Your task to perform on an android device: Open Wikipedia Image 0: 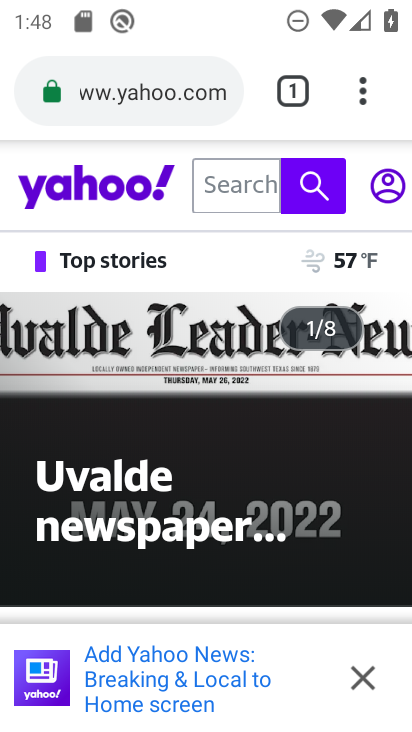
Step 0: press home button
Your task to perform on an android device: Open Wikipedia Image 1: 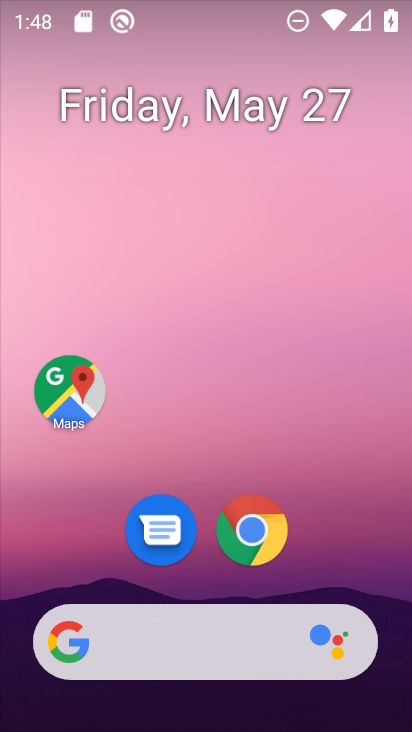
Step 1: drag from (171, 725) to (161, 132)
Your task to perform on an android device: Open Wikipedia Image 2: 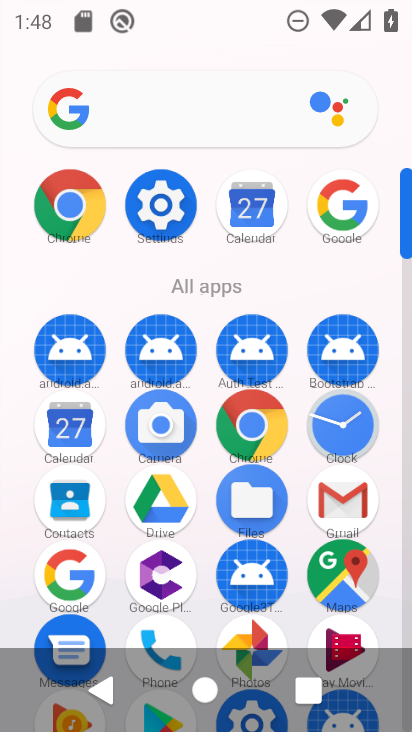
Step 2: click (68, 208)
Your task to perform on an android device: Open Wikipedia Image 3: 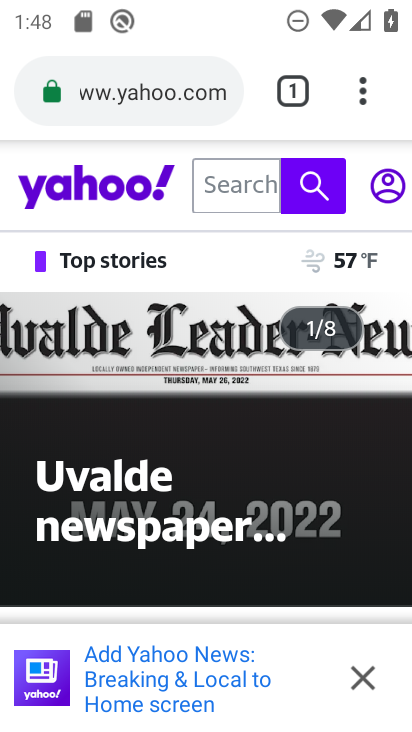
Step 3: click (290, 95)
Your task to perform on an android device: Open Wikipedia Image 4: 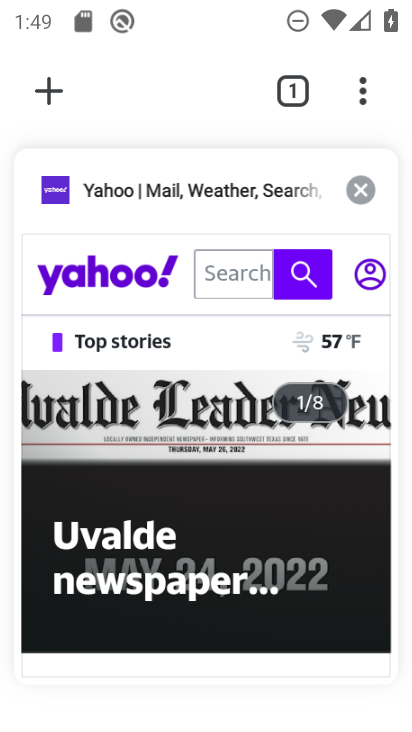
Step 4: click (371, 195)
Your task to perform on an android device: Open Wikipedia Image 5: 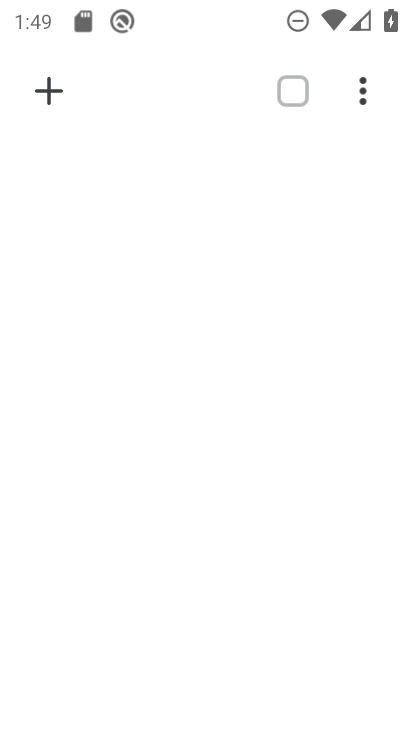
Step 5: click (45, 100)
Your task to perform on an android device: Open Wikipedia Image 6: 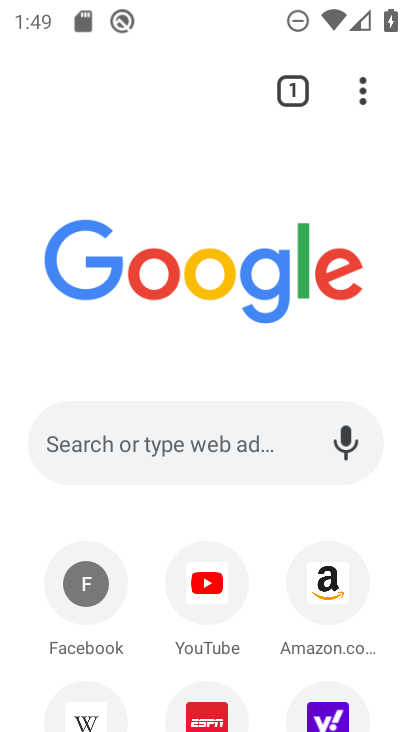
Step 6: click (96, 712)
Your task to perform on an android device: Open Wikipedia Image 7: 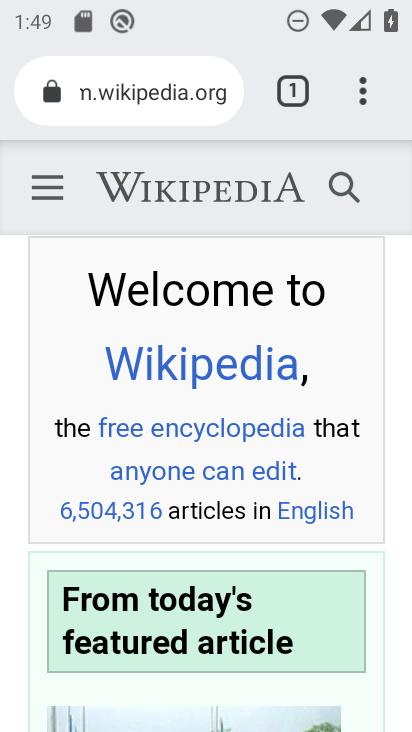
Step 7: task complete